Your task to perform on an android device: Open calendar and show me the first week of next month Image 0: 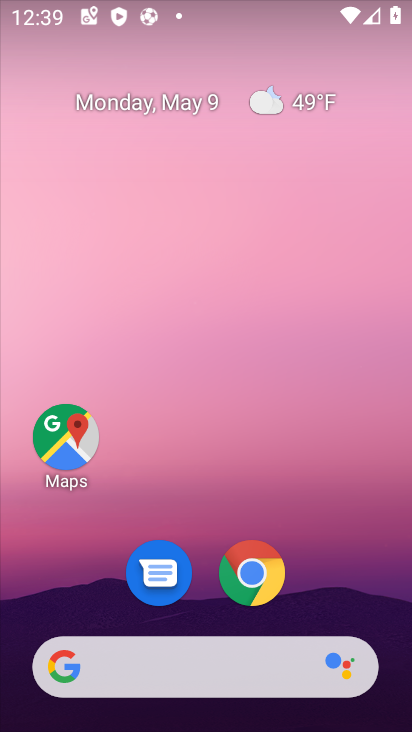
Step 0: drag from (246, 612) to (246, 171)
Your task to perform on an android device: Open calendar and show me the first week of next month Image 1: 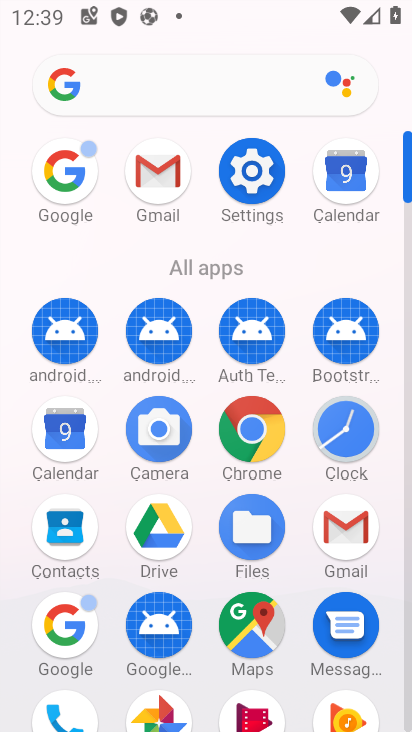
Step 1: click (85, 431)
Your task to perform on an android device: Open calendar and show me the first week of next month Image 2: 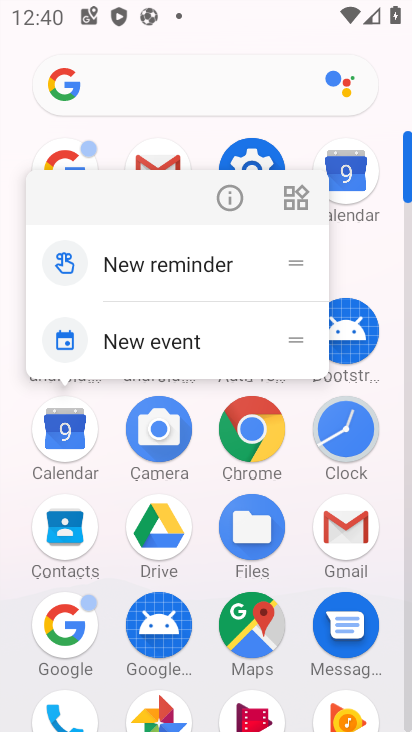
Step 2: press home button
Your task to perform on an android device: Open calendar and show me the first week of next month Image 3: 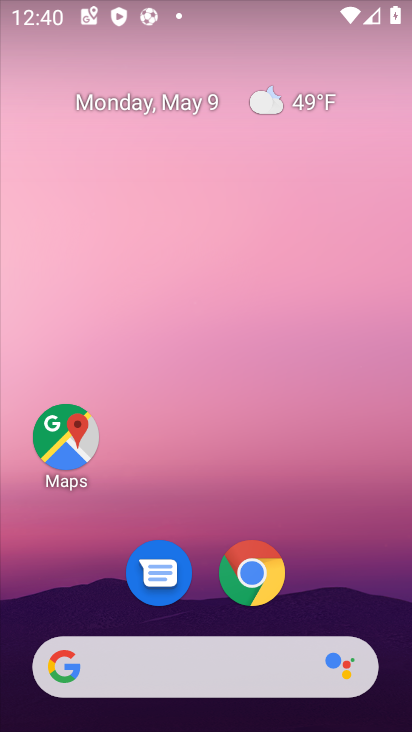
Step 3: drag from (233, 722) to (224, 52)
Your task to perform on an android device: Open calendar and show me the first week of next month Image 4: 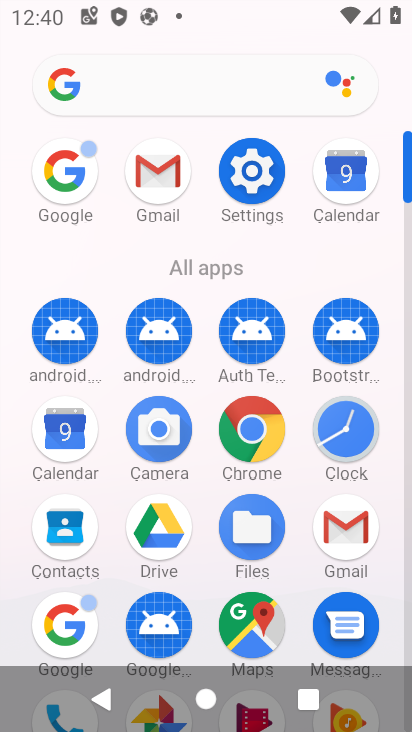
Step 4: click (62, 433)
Your task to perform on an android device: Open calendar and show me the first week of next month Image 5: 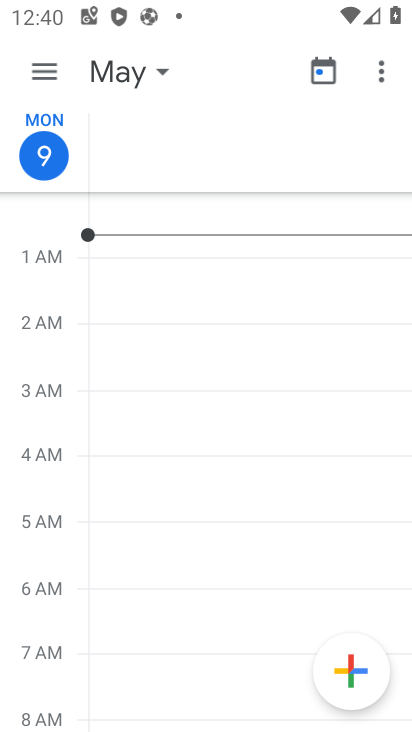
Step 5: click (136, 66)
Your task to perform on an android device: Open calendar and show me the first week of next month Image 6: 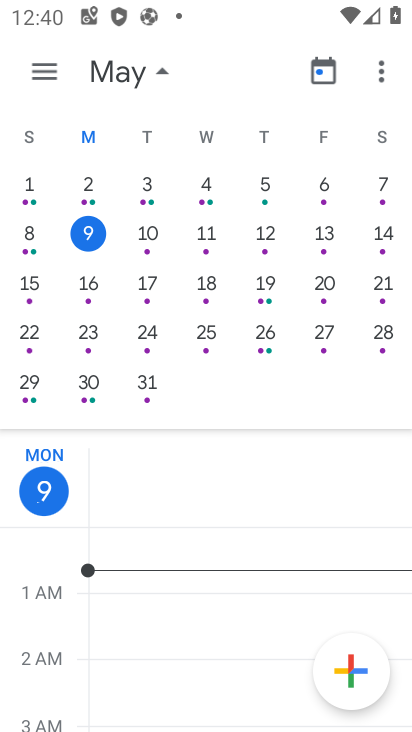
Step 6: task complete